Your task to perform on an android device: manage bookmarks in the chrome app Image 0: 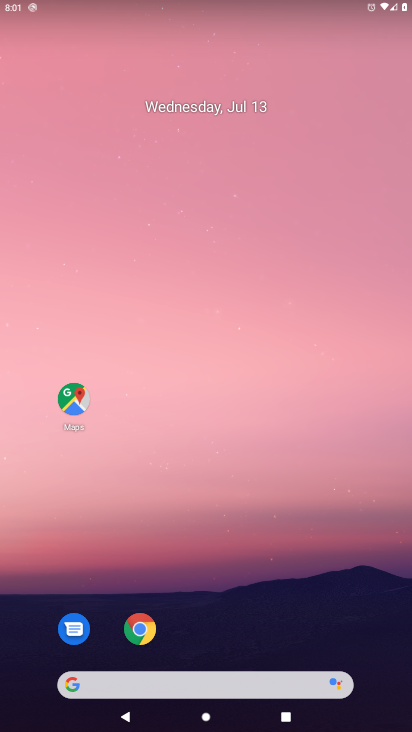
Step 0: click (138, 625)
Your task to perform on an android device: manage bookmarks in the chrome app Image 1: 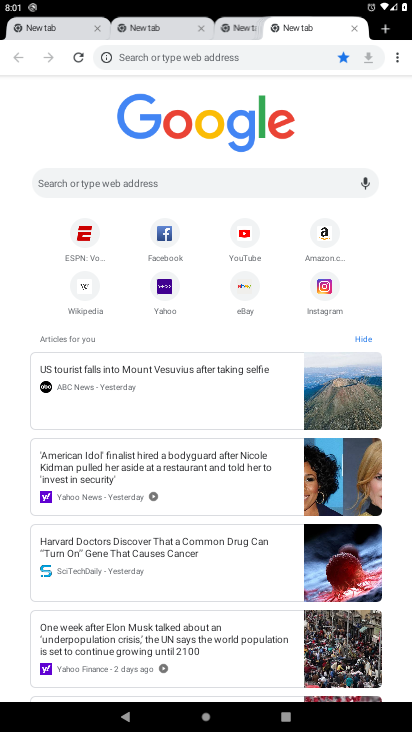
Step 1: click (404, 56)
Your task to perform on an android device: manage bookmarks in the chrome app Image 2: 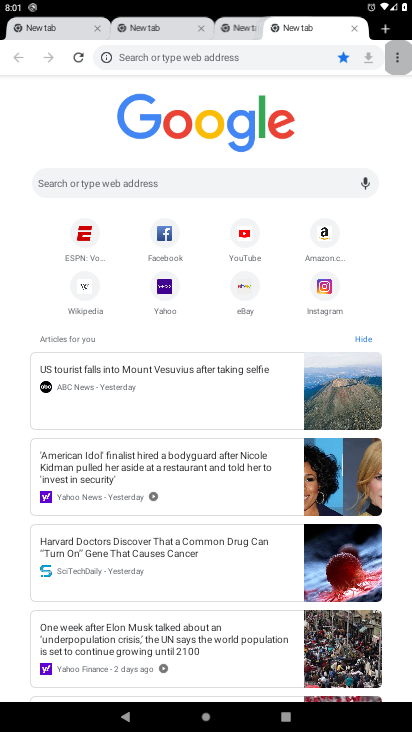
Step 2: click (401, 54)
Your task to perform on an android device: manage bookmarks in the chrome app Image 3: 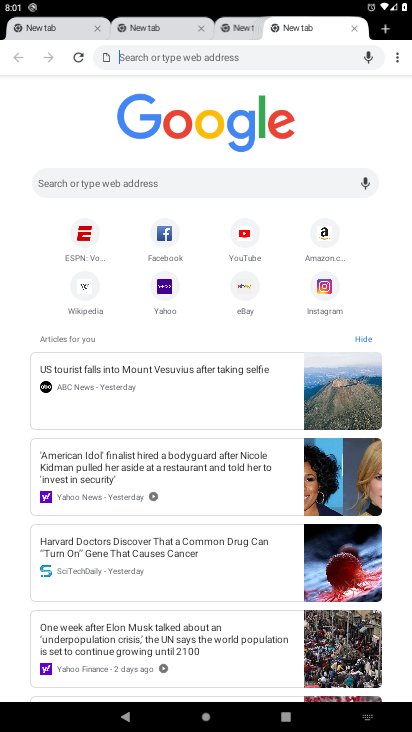
Step 3: click (394, 56)
Your task to perform on an android device: manage bookmarks in the chrome app Image 4: 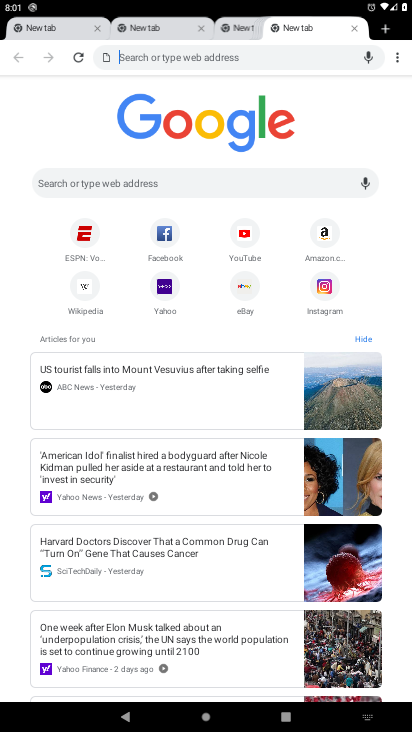
Step 4: task complete